Your task to perform on an android device: Show the shopping cart on costco. Search for "macbook" on costco, select the first entry, and add it to the cart. Image 0: 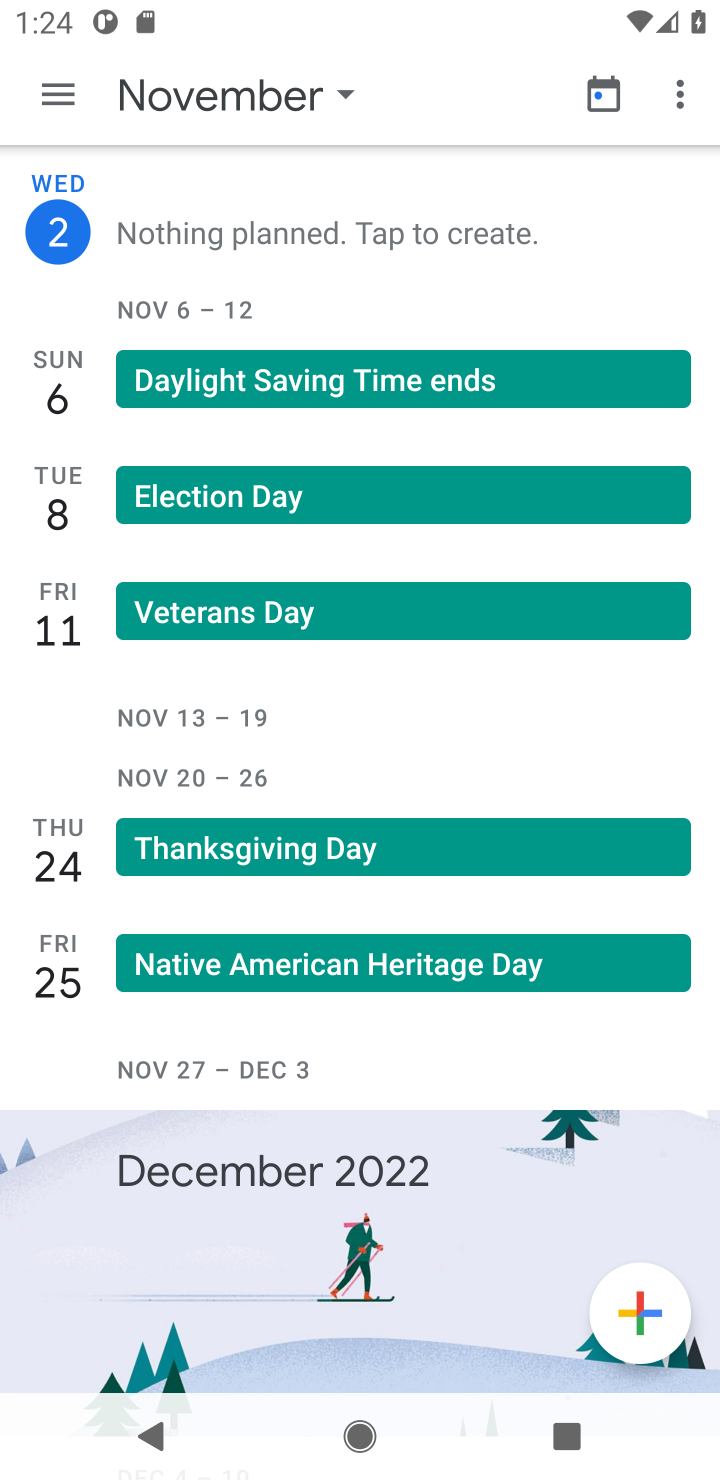
Step 0: press home button
Your task to perform on an android device: Show the shopping cart on costco. Search for "macbook" on costco, select the first entry, and add it to the cart. Image 1: 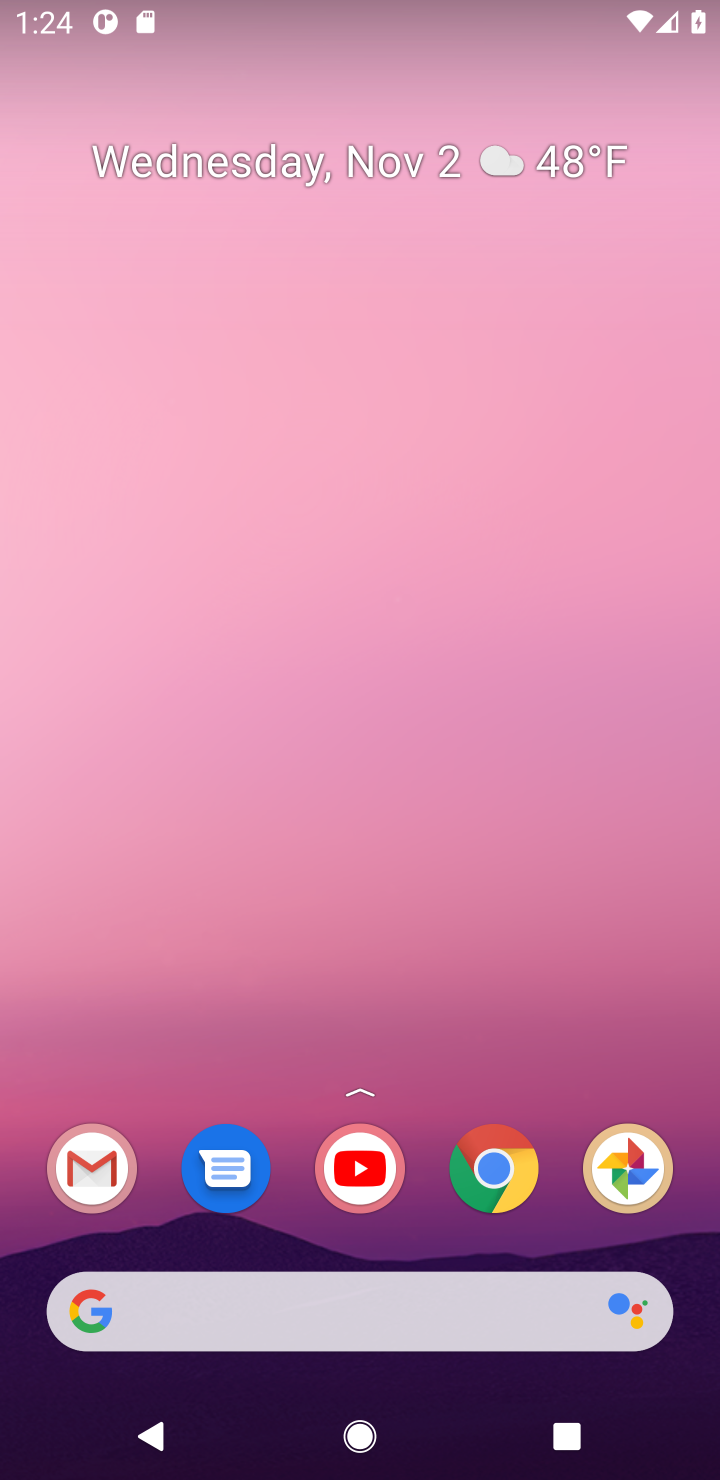
Step 1: click (322, 1320)
Your task to perform on an android device: Show the shopping cart on costco. Search for "macbook" on costco, select the first entry, and add it to the cart. Image 2: 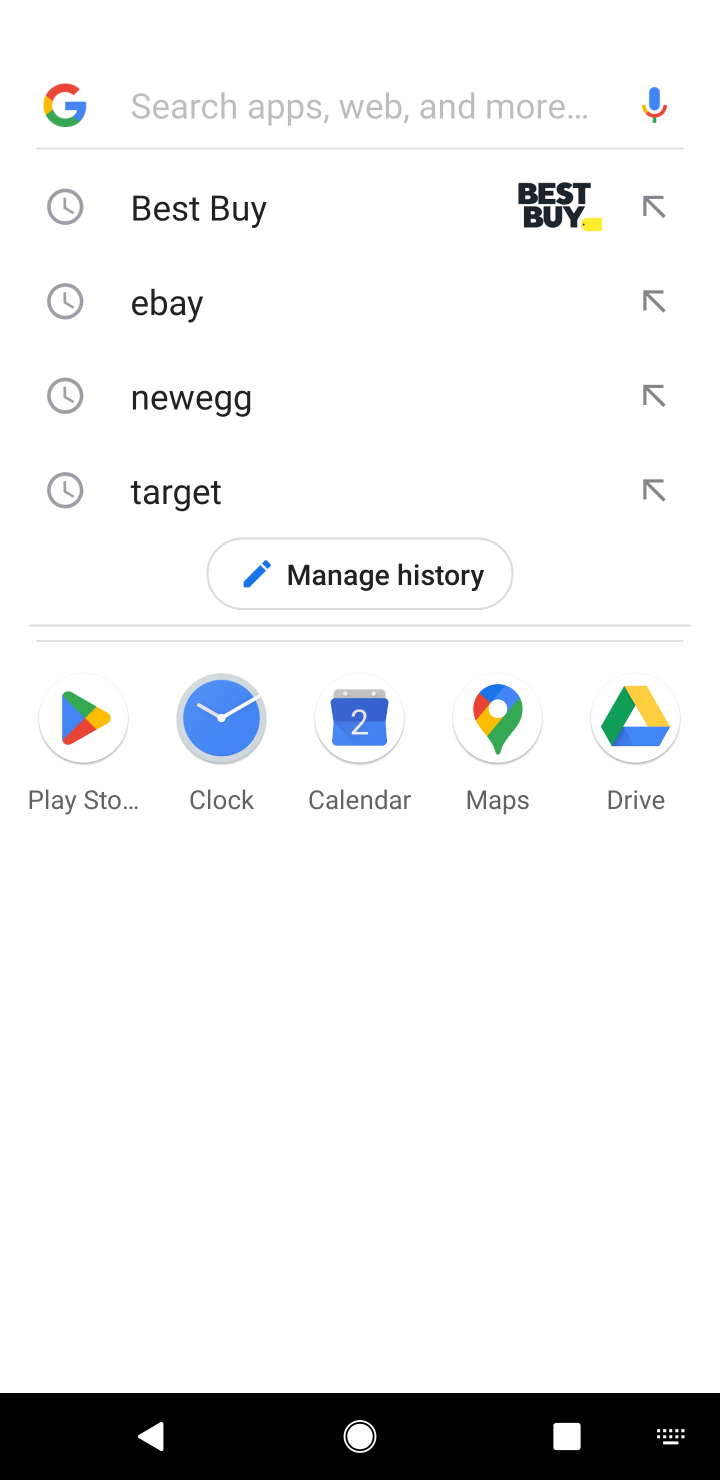
Step 2: type "costco"
Your task to perform on an android device: Show the shopping cart on costco. Search for "macbook" on costco, select the first entry, and add it to the cart. Image 3: 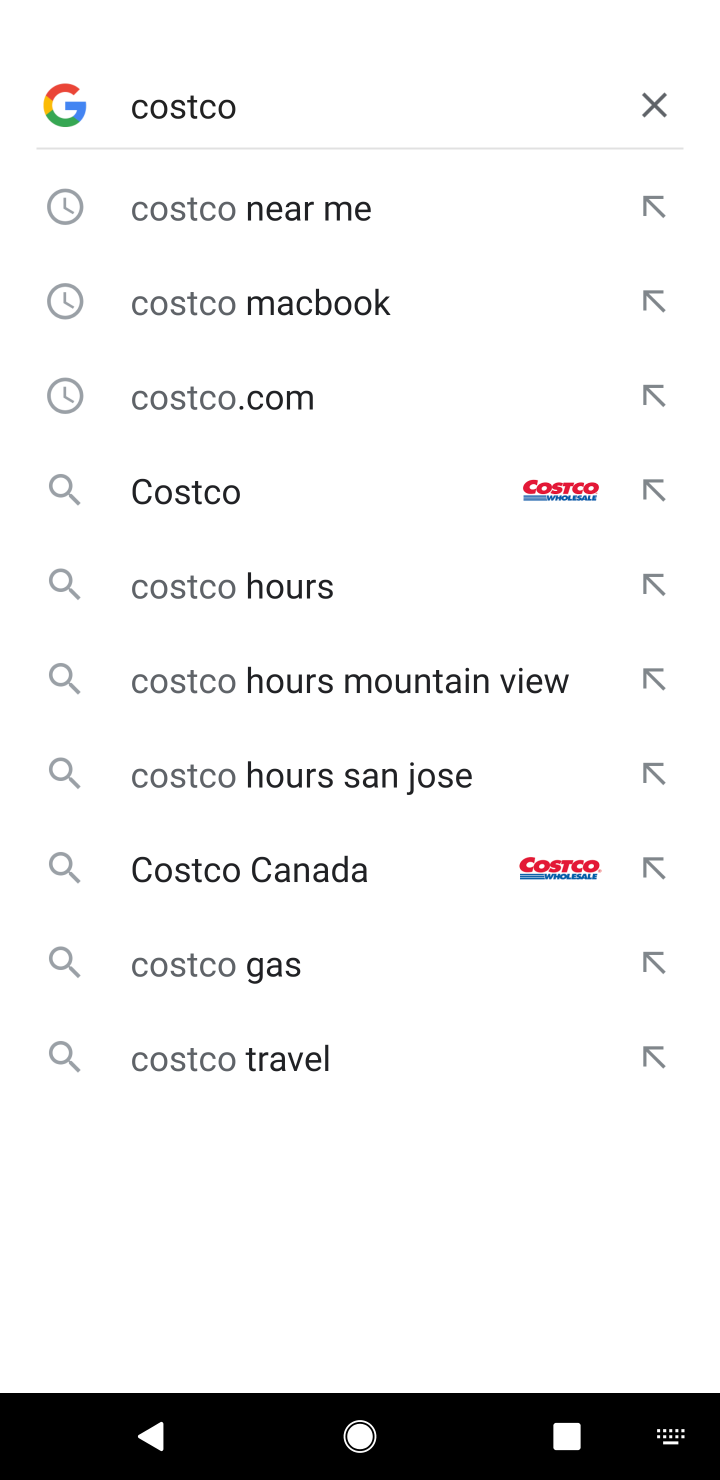
Step 3: click (306, 490)
Your task to perform on an android device: Show the shopping cart on costco. Search for "macbook" on costco, select the first entry, and add it to the cart. Image 4: 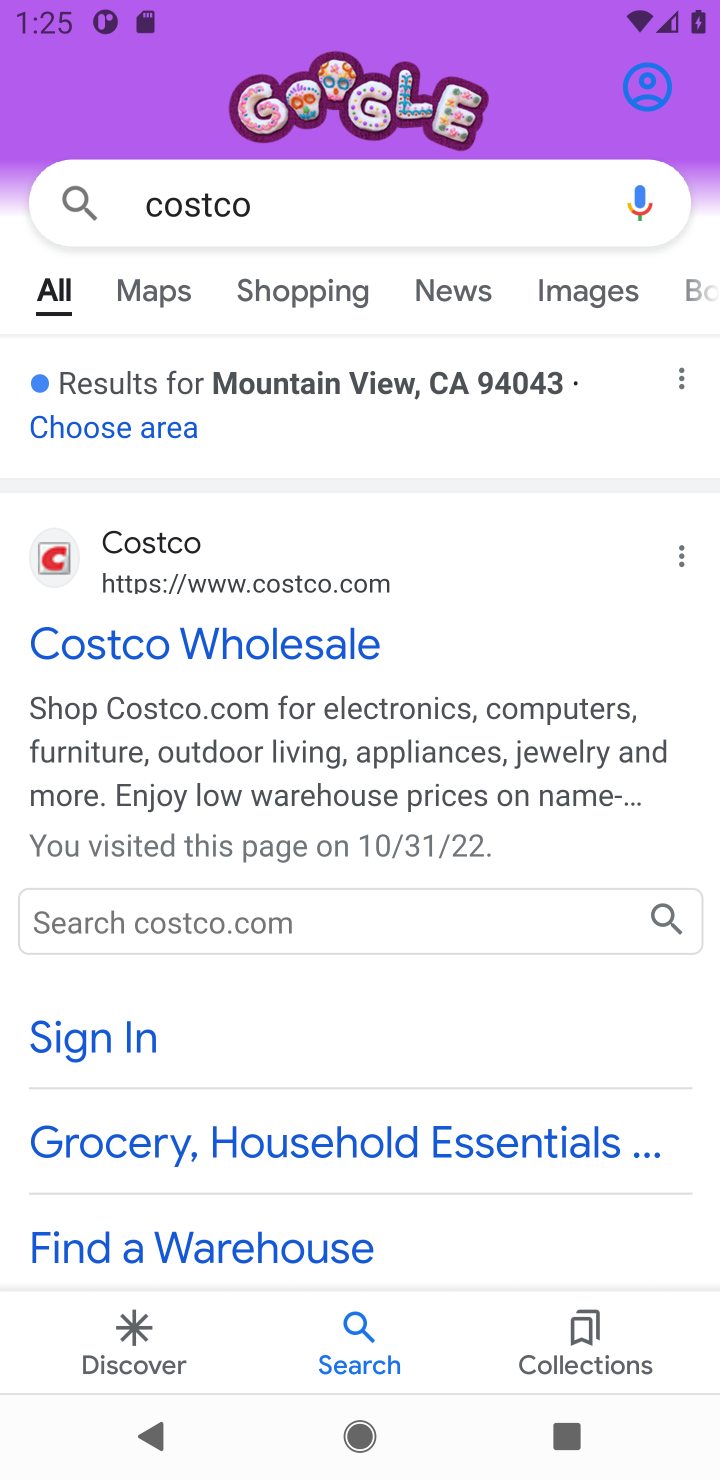
Step 4: click (146, 550)
Your task to perform on an android device: Show the shopping cart on costco. Search for "macbook" on costco, select the first entry, and add it to the cart. Image 5: 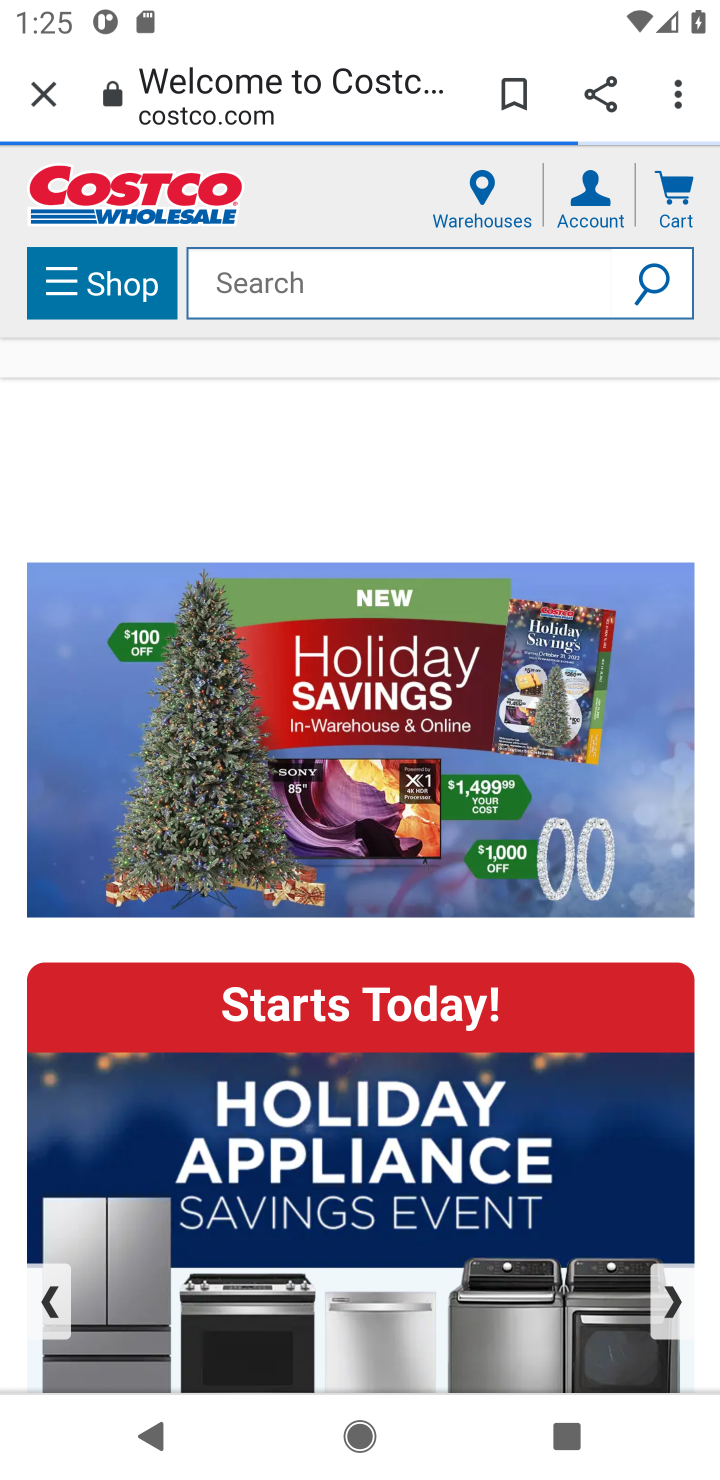
Step 5: click (364, 285)
Your task to perform on an android device: Show the shopping cart on costco. Search for "macbook" on costco, select the first entry, and add it to the cart. Image 6: 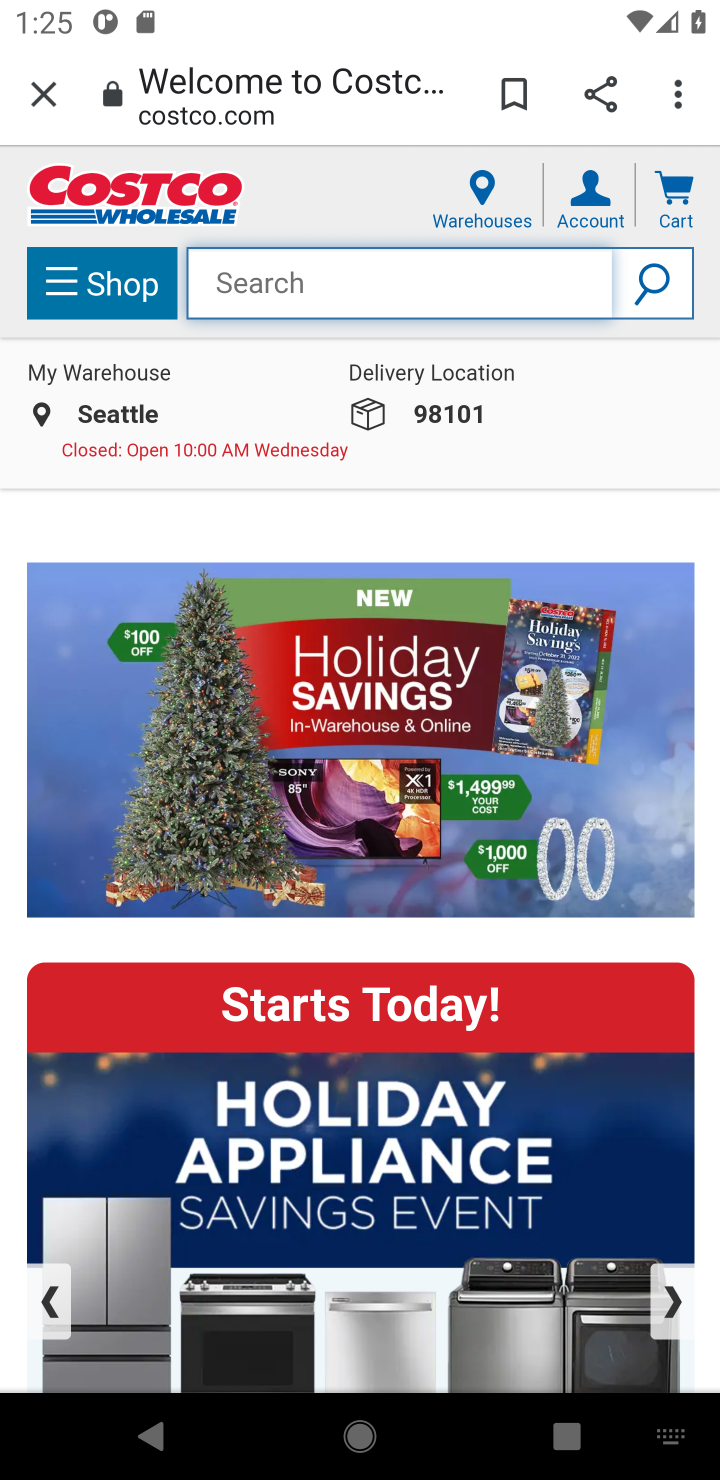
Step 6: type "macbook"
Your task to perform on an android device: Show the shopping cart on costco. Search for "macbook" on costco, select the first entry, and add it to the cart. Image 7: 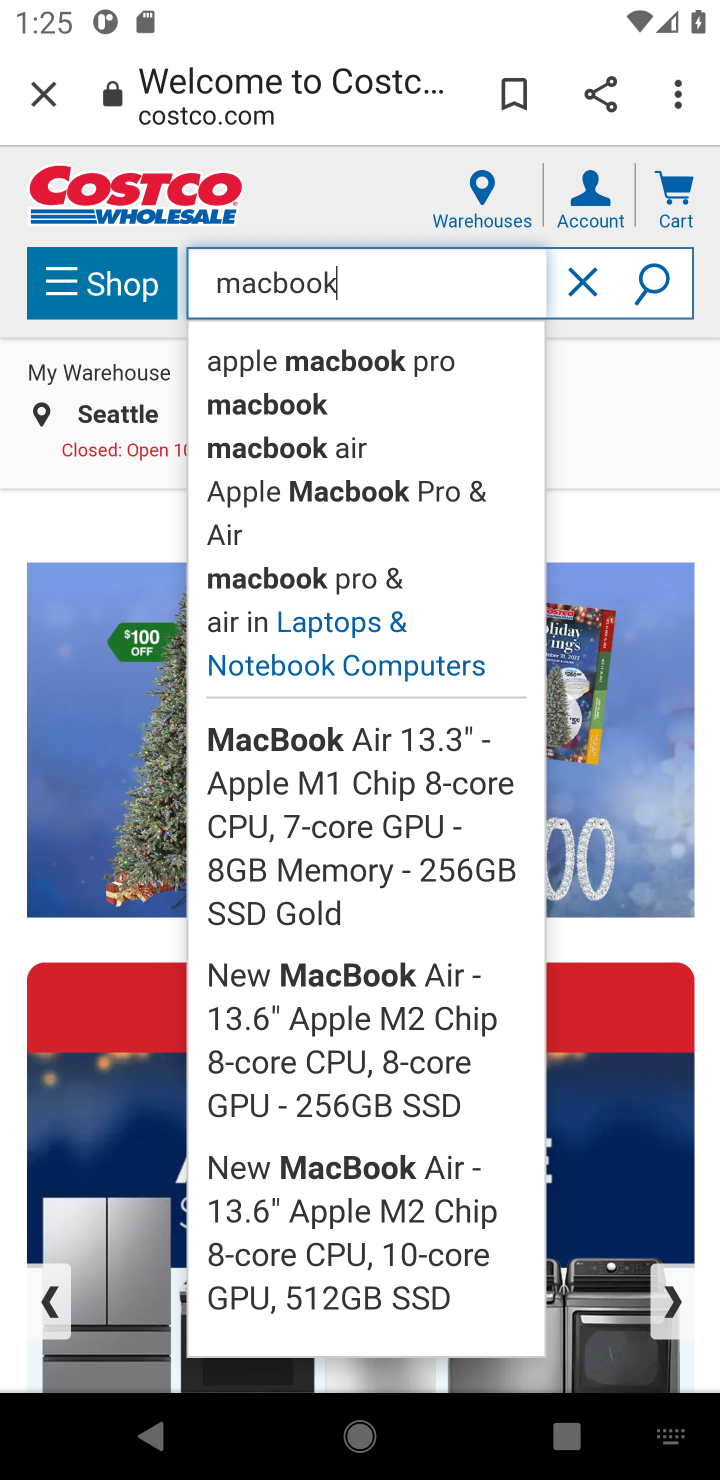
Step 7: click (305, 415)
Your task to perform on an android device: Show the shopping cart on costco. Search for "macbook" on costco, select the first entry, and add it to the cart. Image 8: 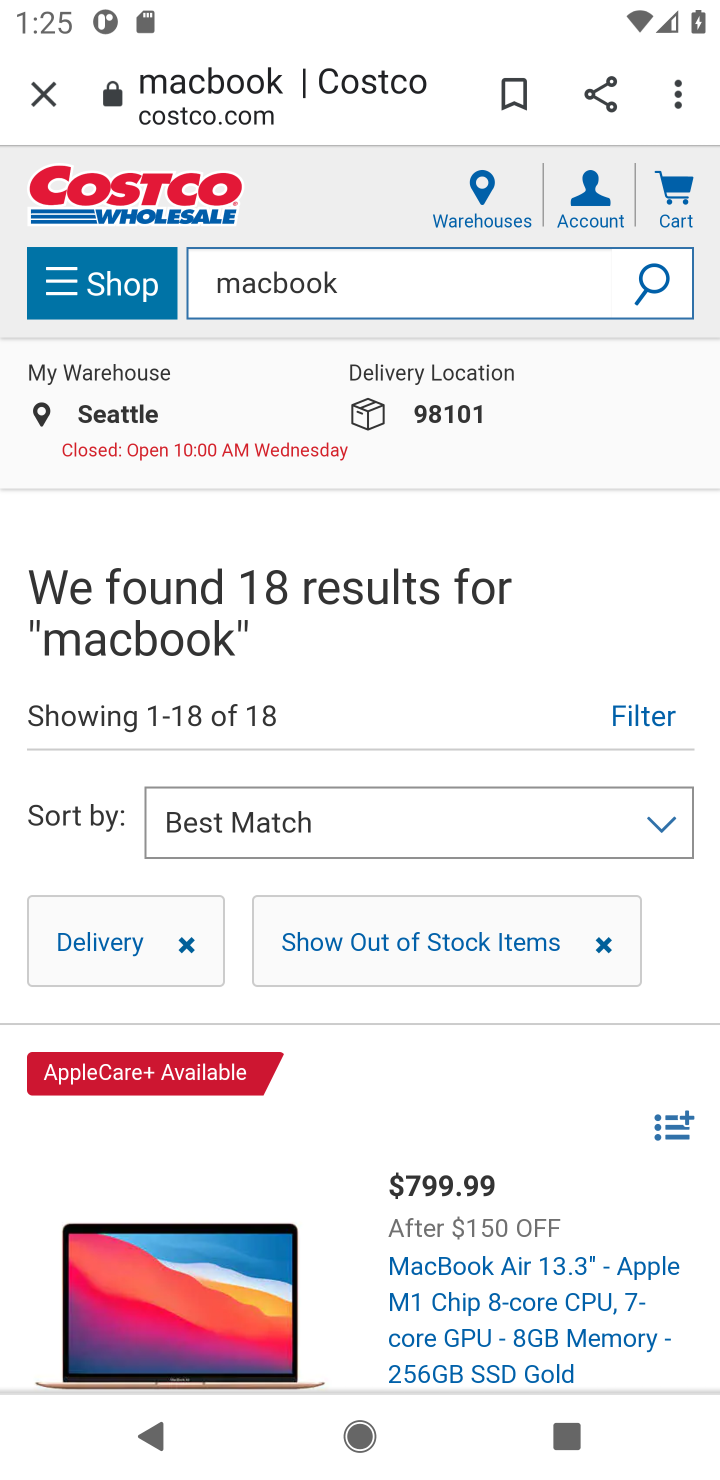
Step 8: click (435, 1268)
Your task to perform on an android device: Show the shopping cart on costco. Search for "macbook" on costco, select the first entry, and add it to the cart. Image 9: 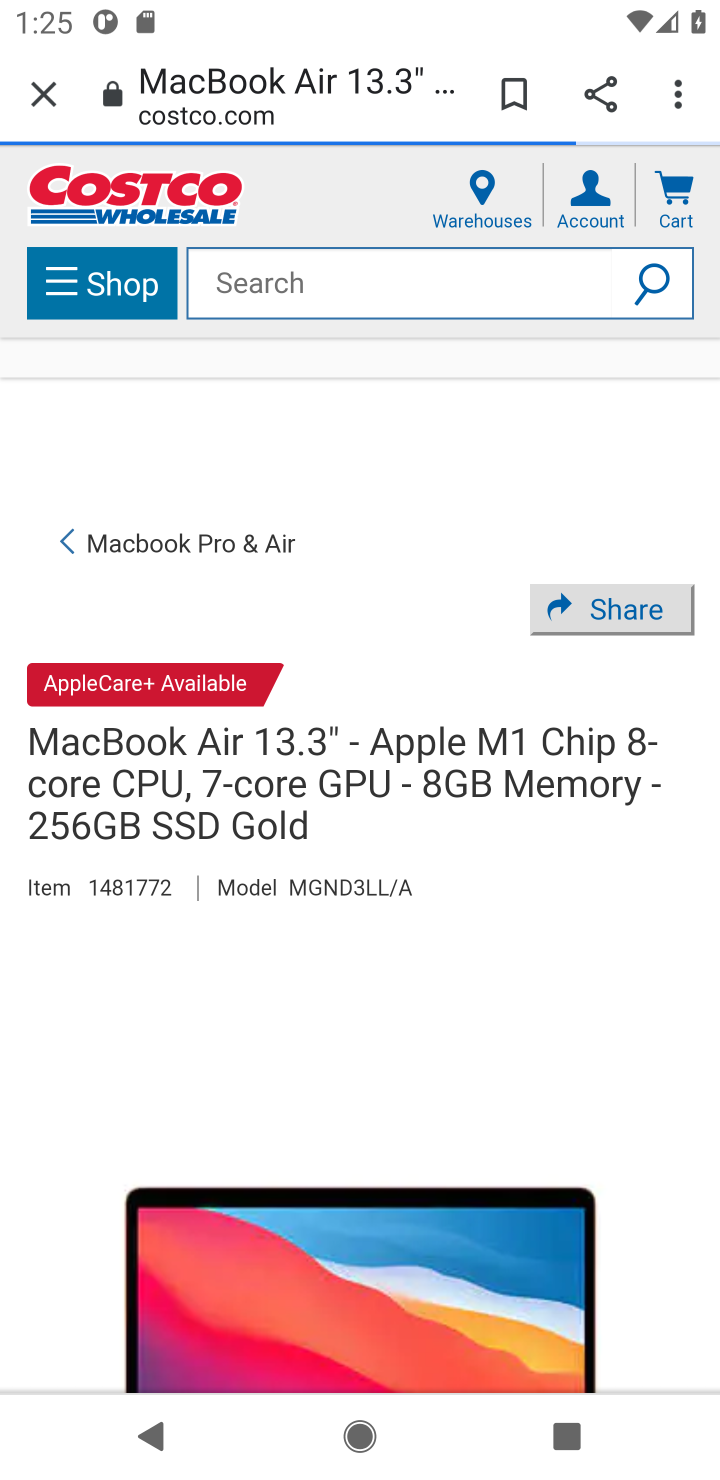
Step 9: drag from (415, 1108) to (521, 606)
Your task to perform on an android device: Show the shopping cart on costco. Search for "macbook" on costco, select the first entry, and add it to the cart. Image 10: 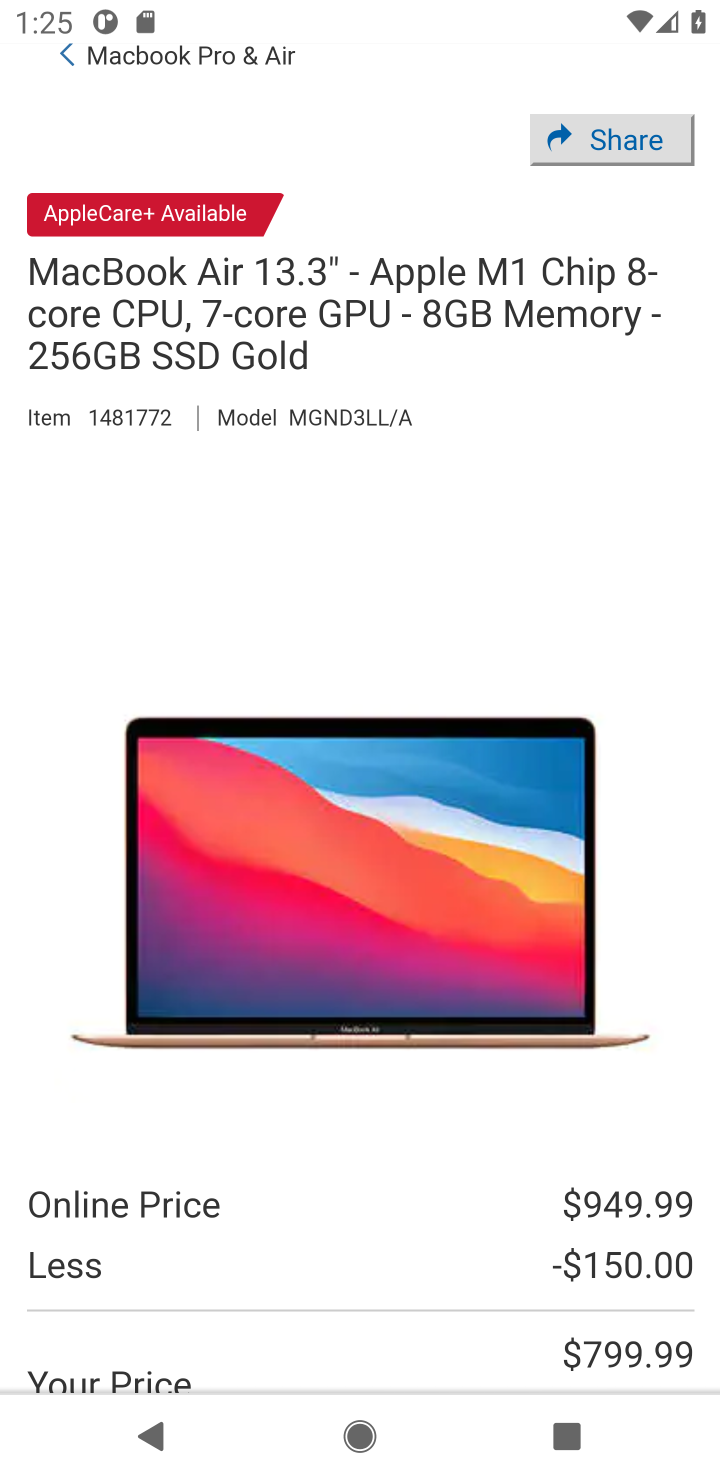
Step 10: click (636, 454)
Your task to perform on an android device: Show the shopping cart on costco. Search for "macbook" on costco, select the first entry, and add it to the cart. Image 11: 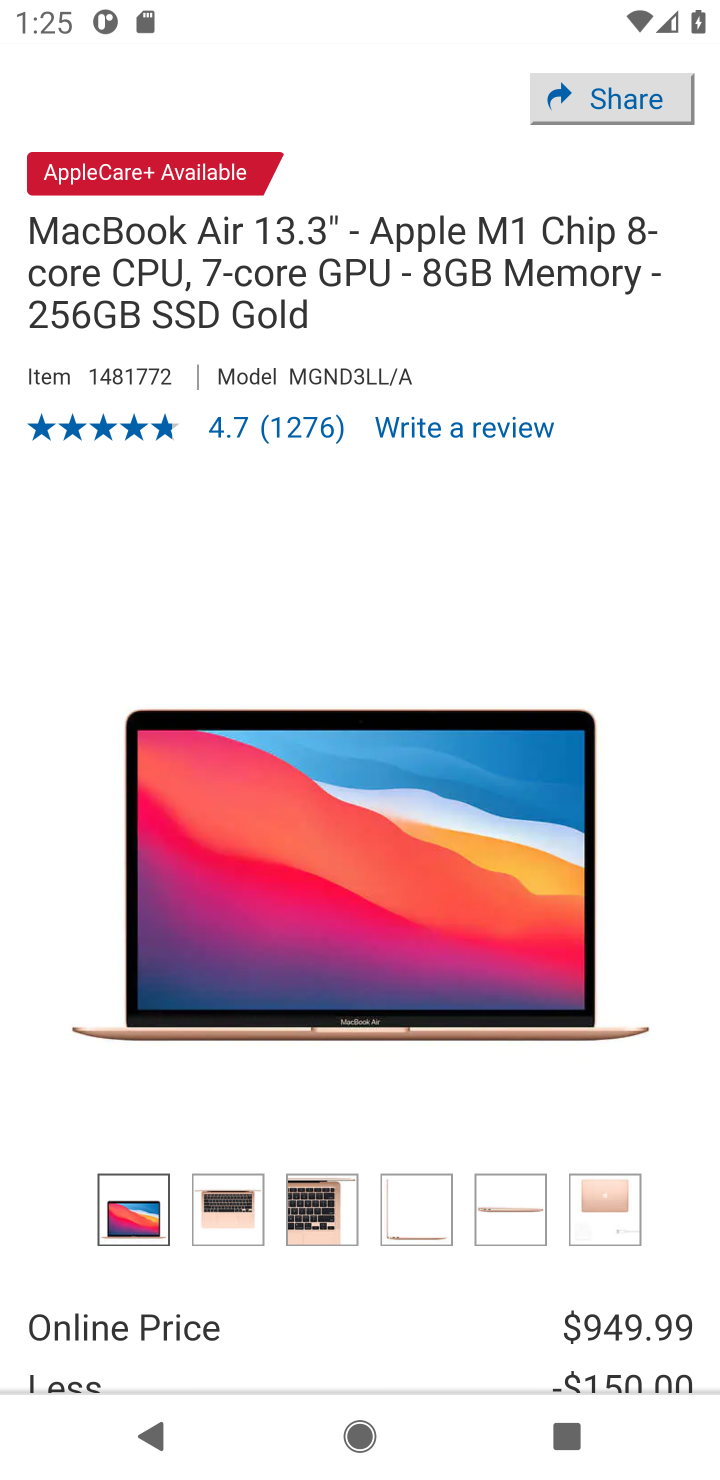
Step 11: click (566, 892)
Your task to perform on an android device: Show the shopping cart on costco. Search for "macbook" on costco, select the first entry, and add it to the cart. Image 12: 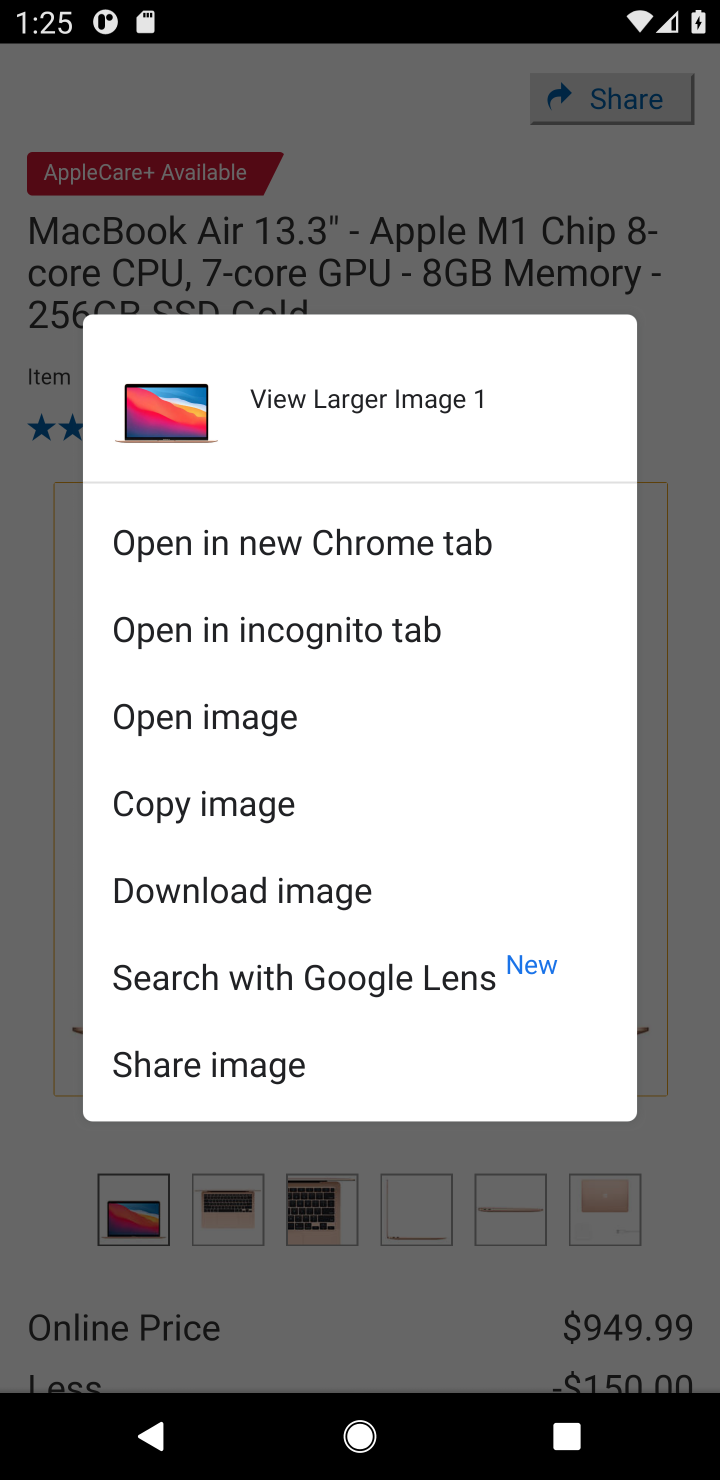
Step 12: click (348, 1157)
Your task to perform on an android device: Show the shopping cart on costco. Search for "macbook" on costco, select the first entry, and add it to the cart. Image 13: 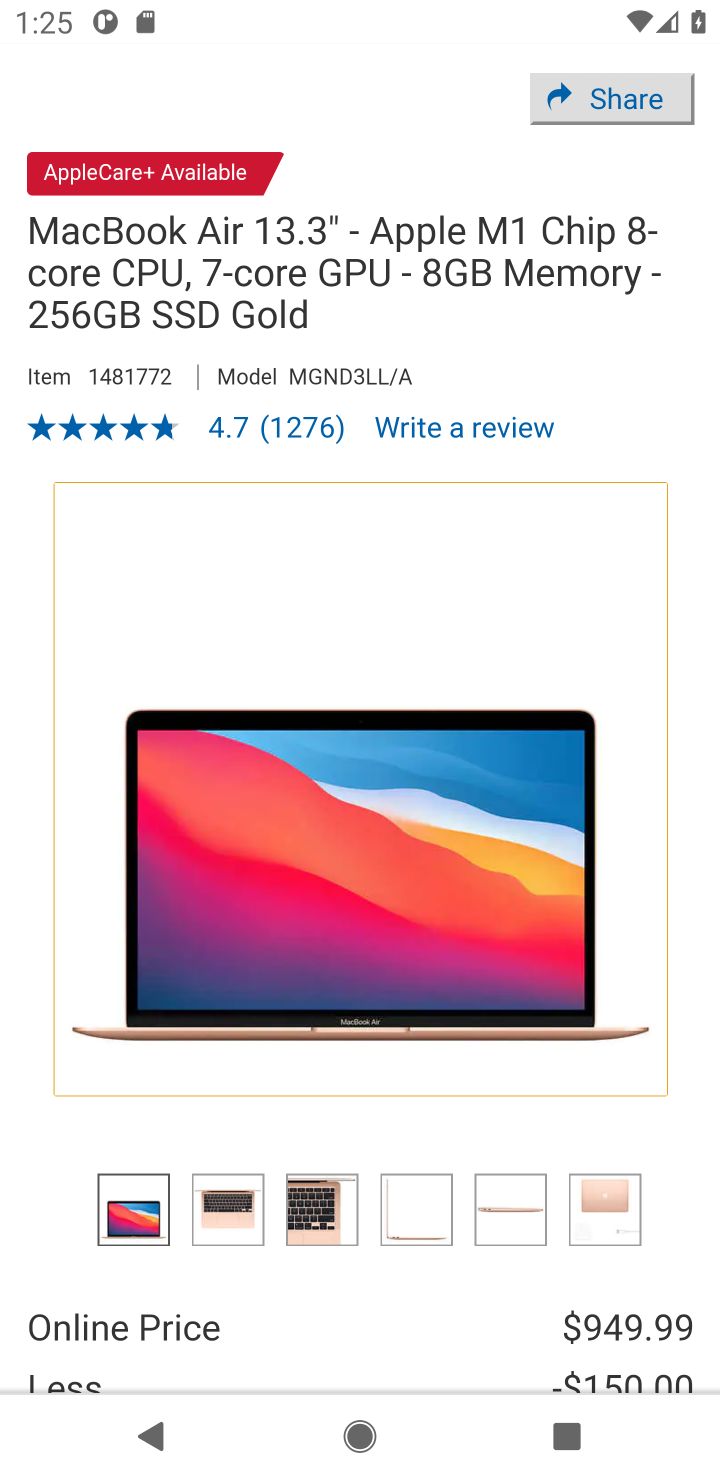
Step 13: drag from (538, 582) to (565, 504)
Your task to perform on an android device: Show the shopping cart on costco. Search for "macbook" on costco, select the first entry, and add it to the cart. Image 14: 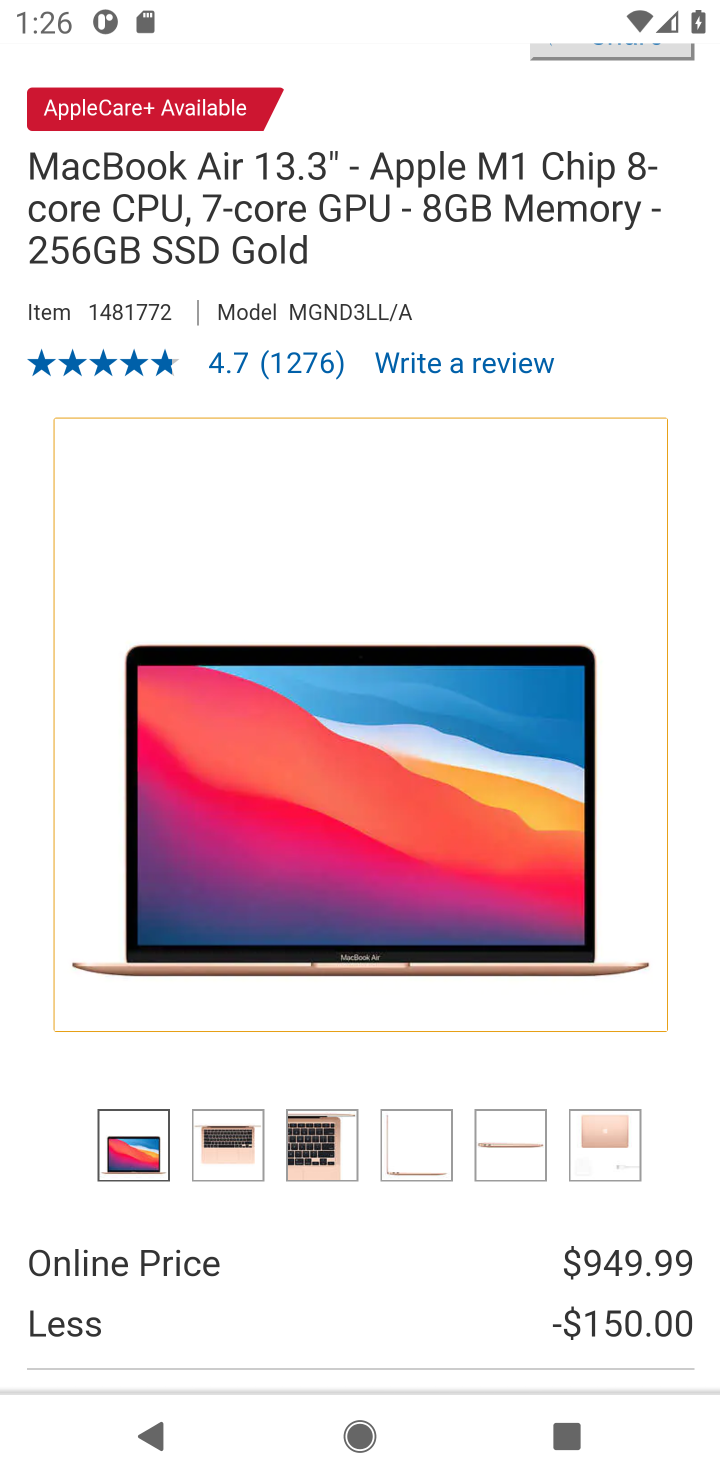
Step 14: drag from (309, 1225) to (452, 624)
Your task to perform on an android device: Show the shopping cart on costco. Search for "macbook" on costco, select the first entry, and add it to the cart. Image 15: 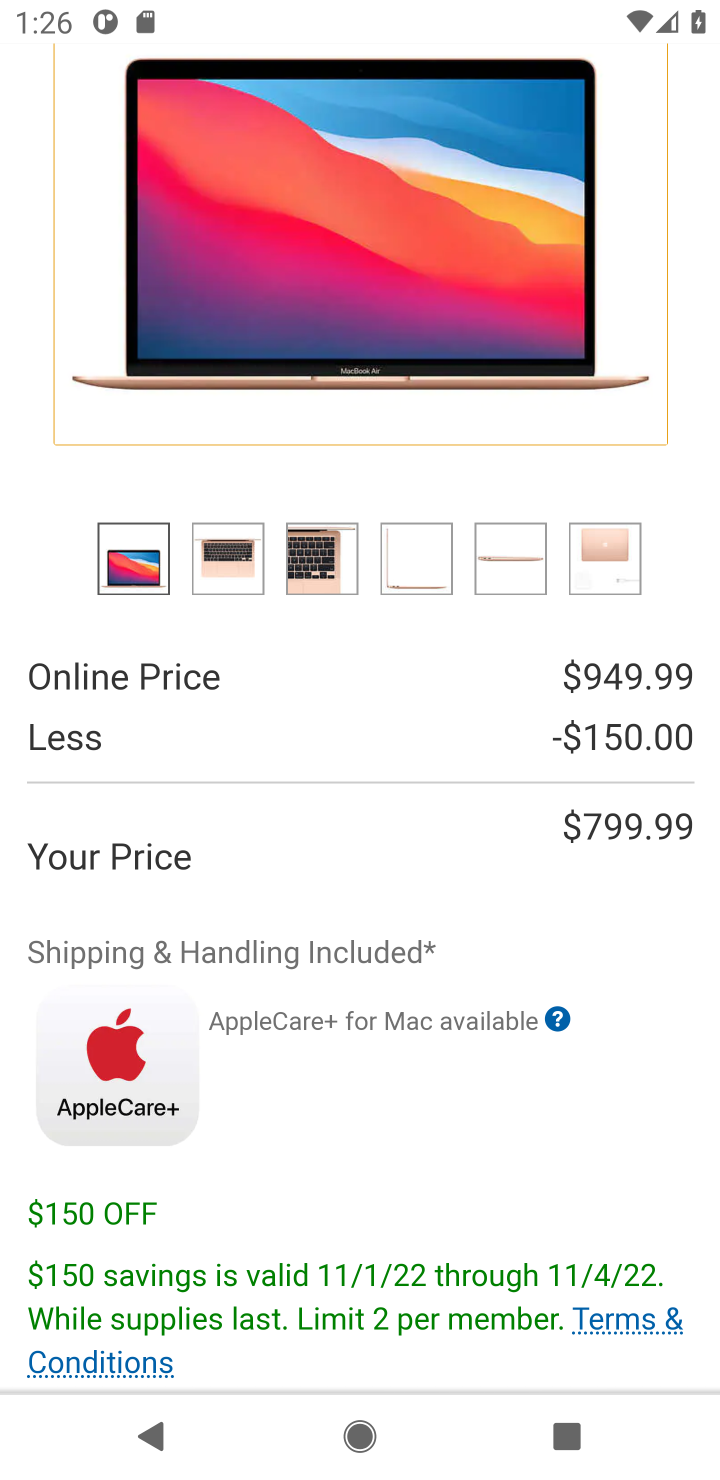
Step 15: drag from (387, 1130) to (493, 681)
Your task to perform on an android device: Show the shopping cart on costco. Search for "macbook" on costco, select the first entry, and add it to the cart. Image 16: 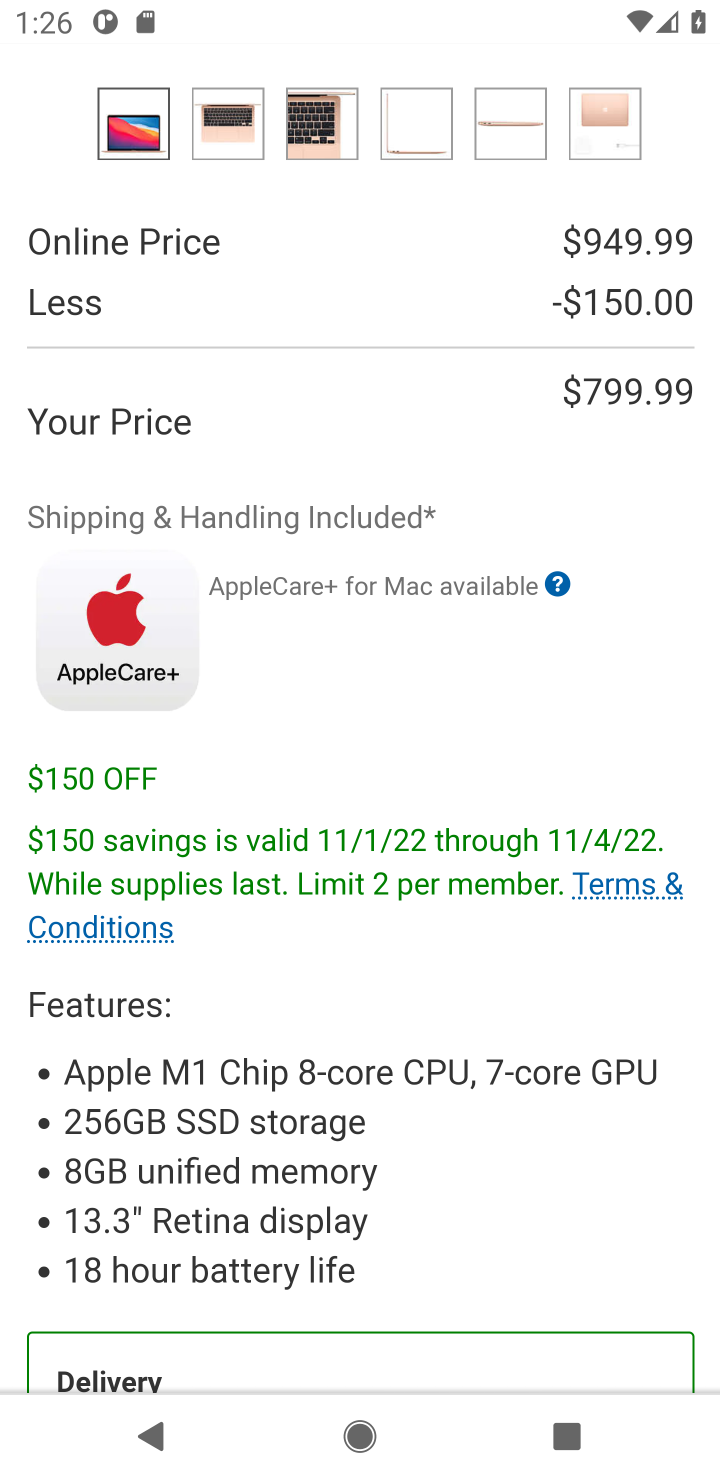
Step 16: drag from (589, 900) to (589, 624)
Your task to perform on an android device: Show the shopping cart on costco. Search for "macbook" on costco, select the first entry, and add it to the cart. Image 17: 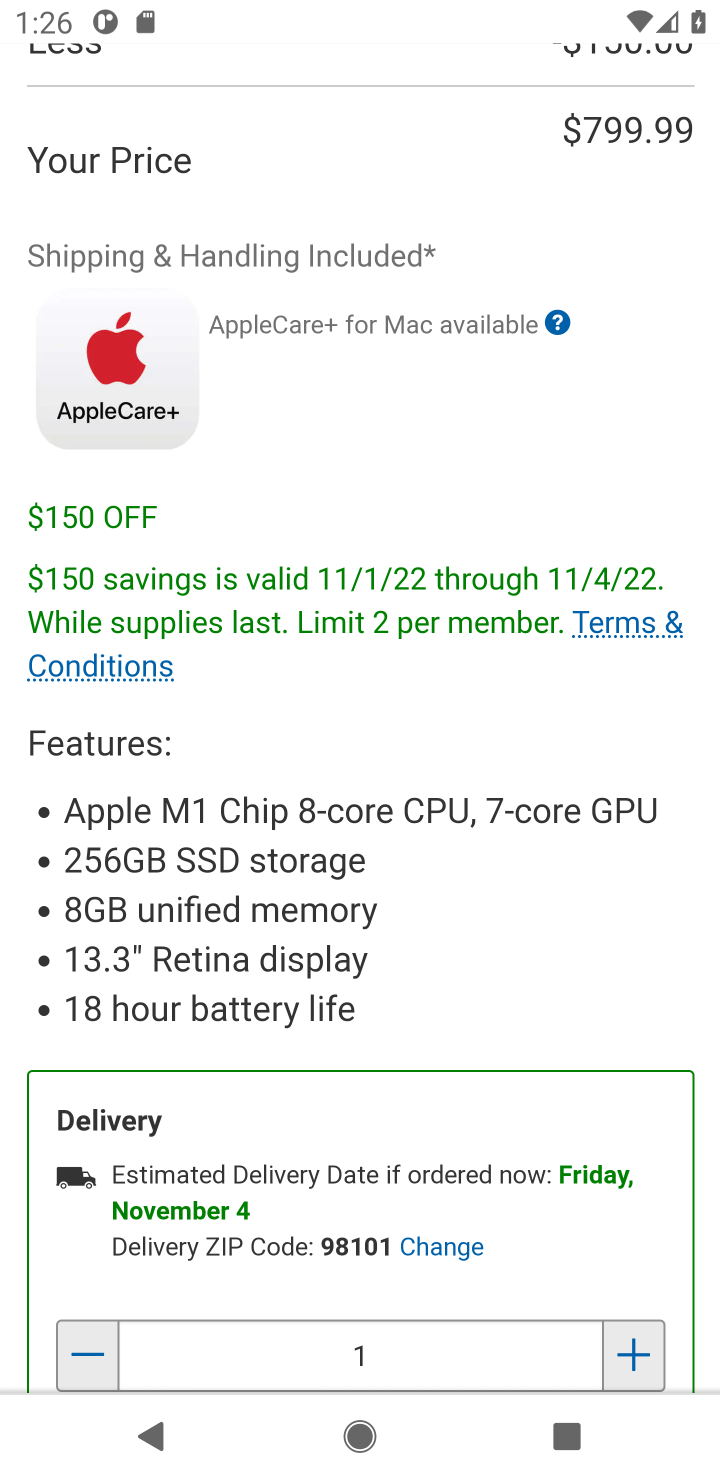
Step 17: drag from (409, 762) to (430, 605)
Your task to perform on an android device: Show the shopping cart on costco. Search for "macbook" on costco, select the first entry, and add it to the cart. Image 18: 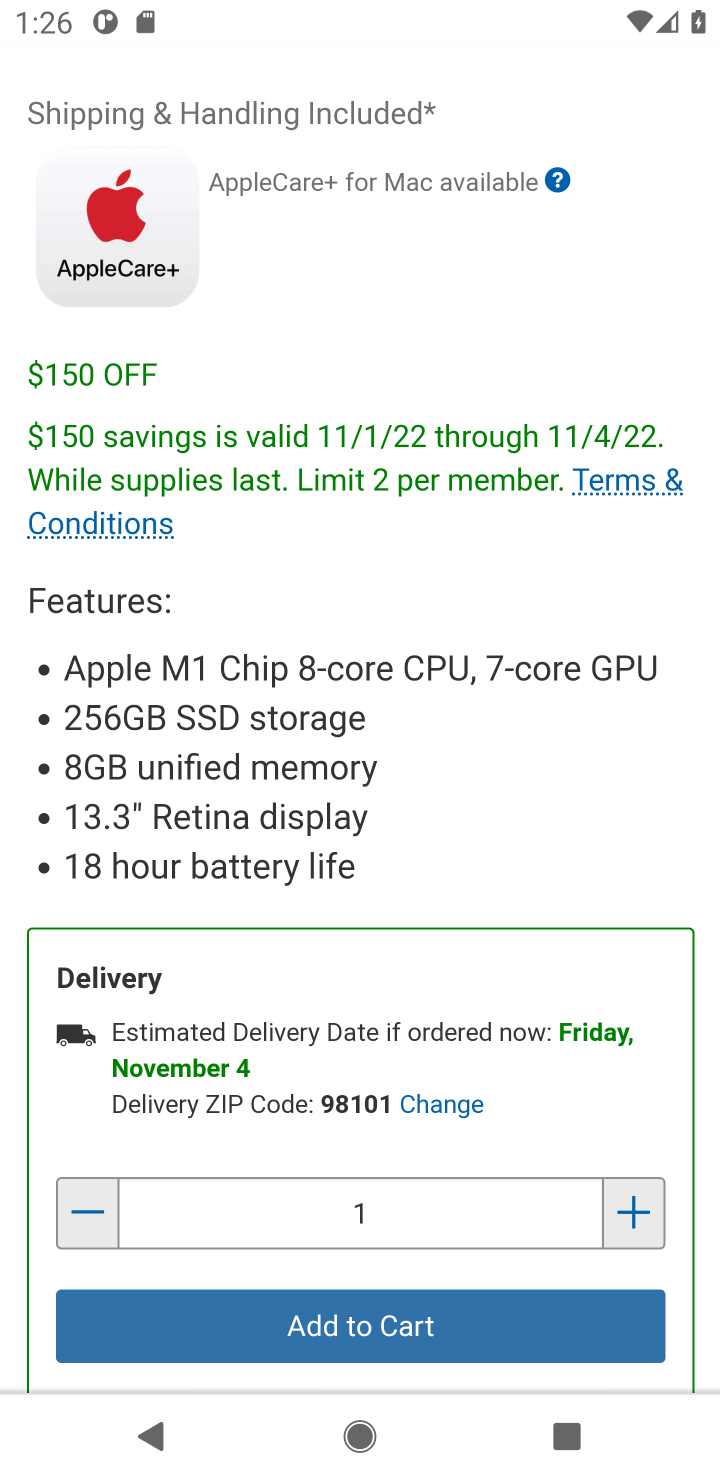
Step 18: click (342, 1316)
Your task to perform on an android device: Show the shopping cart on costco. Search for "macbook" on costco, select the first entry, and add it to the cart. Image 19: 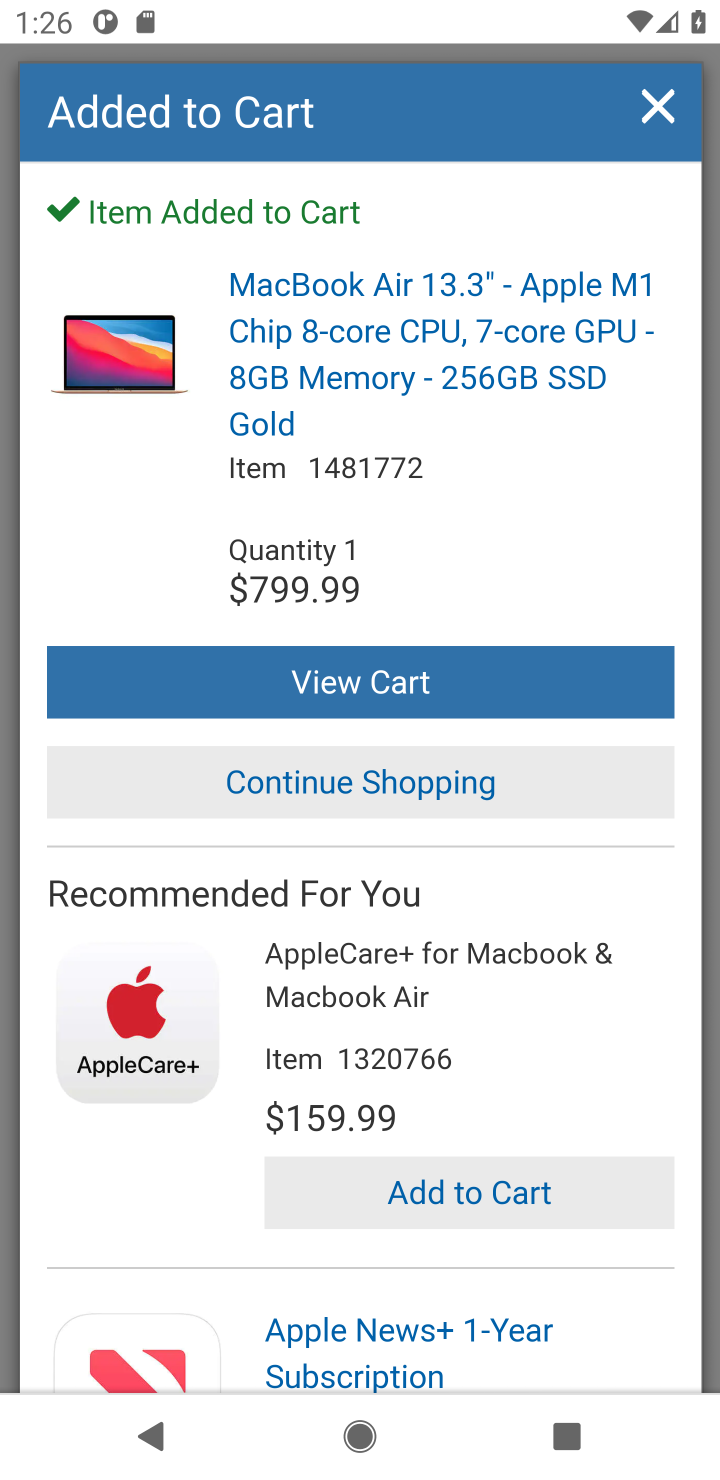
Step 19: click (417, 664)
Your task to perform on an android device: Show the shopping cart on costco. Search for "macbook" on costco, select the first entry, and add it to the cart. Image 20: 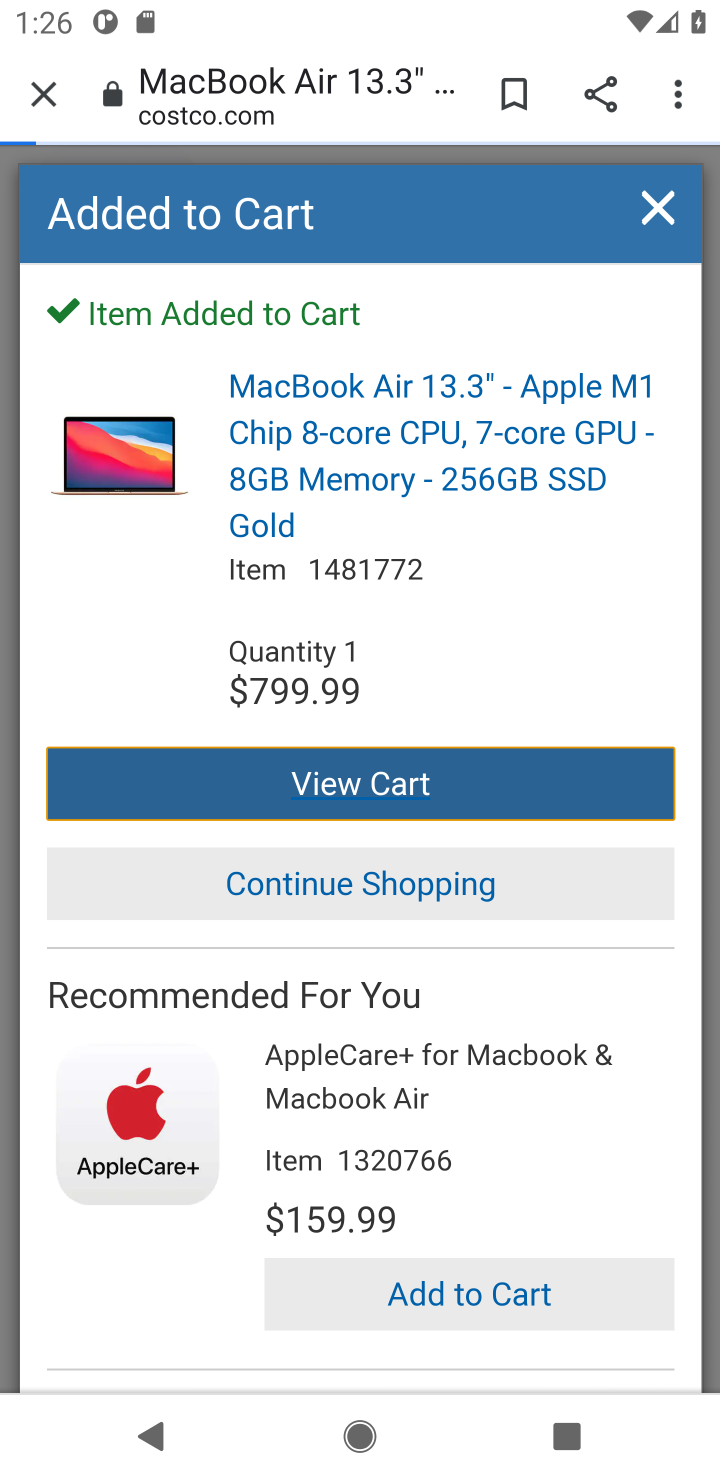
Step 20: task complete